Your task to perform on an android device: Open battery settings Image 0: 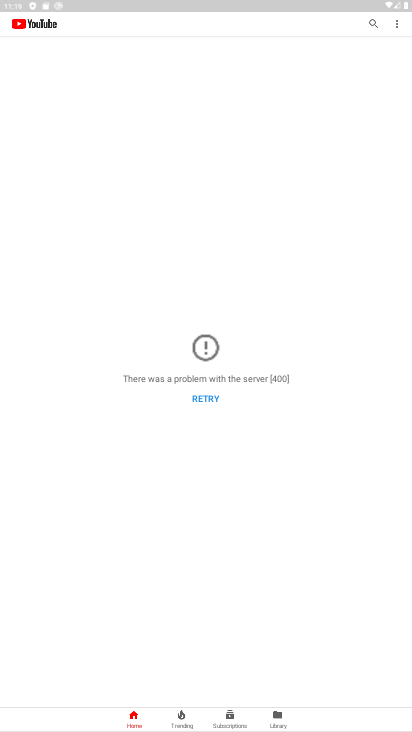
Step 0: press home button
Your task to perform on an android device: Open battery settings Image 1: 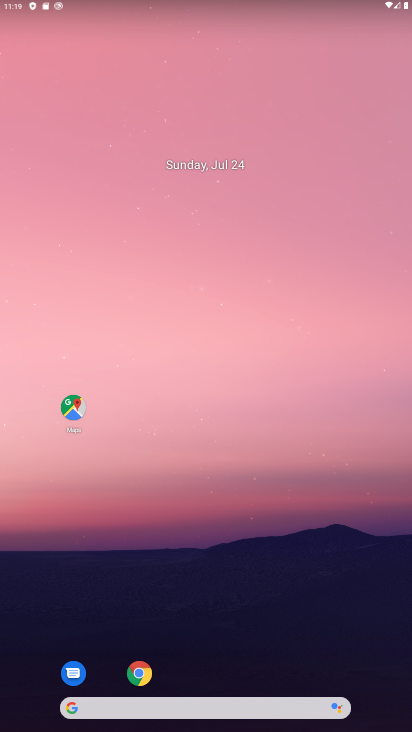
Step 1: drag from (272, 633) to (270, 31)
Your task to perform on an android device: Open battery settings Image 2: 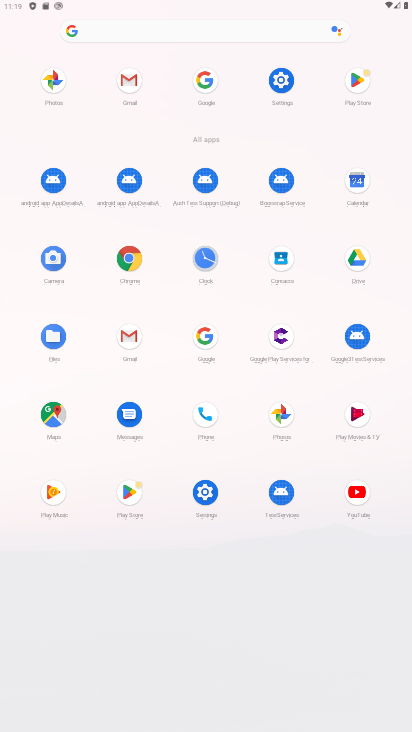
Step 2: click (284, 79)
Your task to perform on an android device: Open battery settings Image 3: 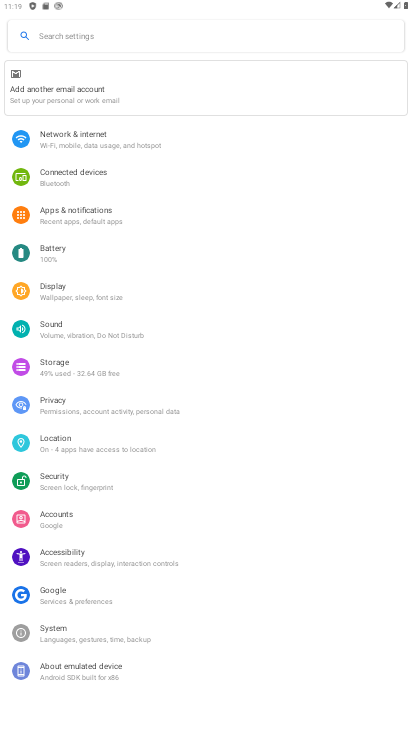
Step 3: click (58, 253)
Your task to perform on an android device: Open battery settings Image 4: 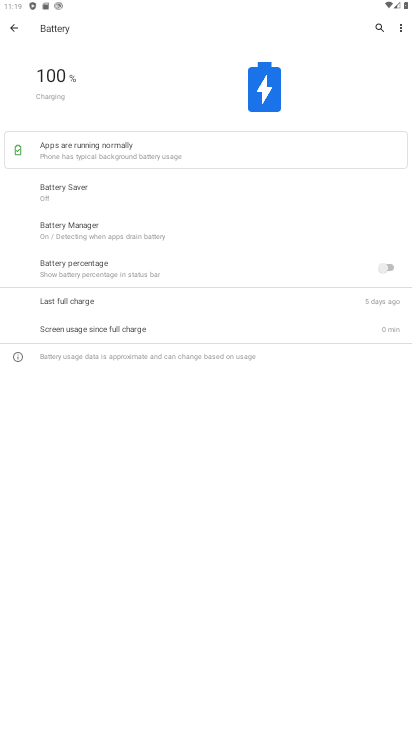
Step 4: task complete